Your task to perform on an android device: turn off translation in the chrome app Image 0: 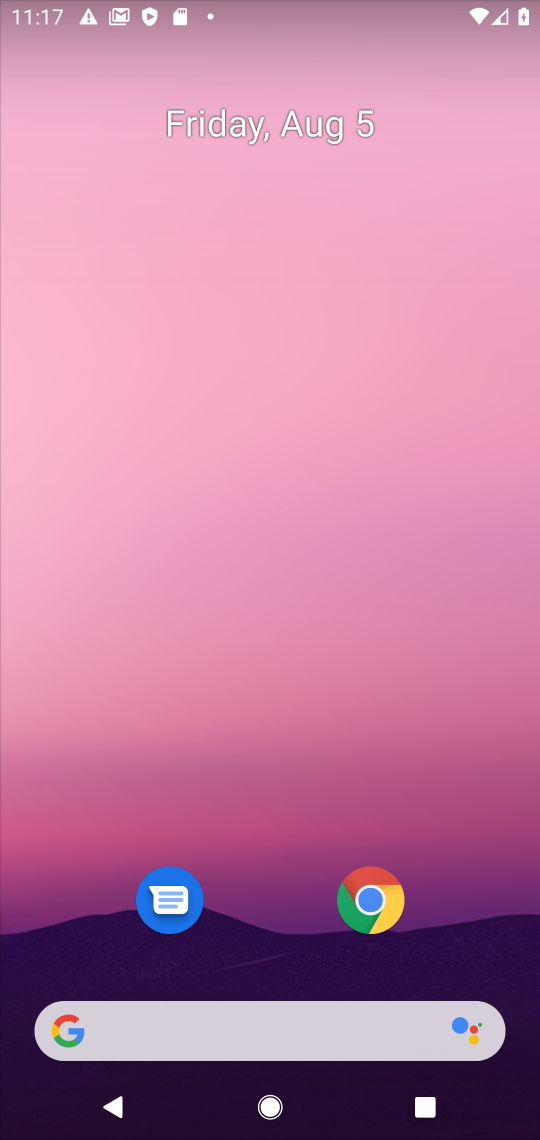
Step 0: click (367, 903)
Your task to perform on an android device: turn off translation in the chrome app Image 1: 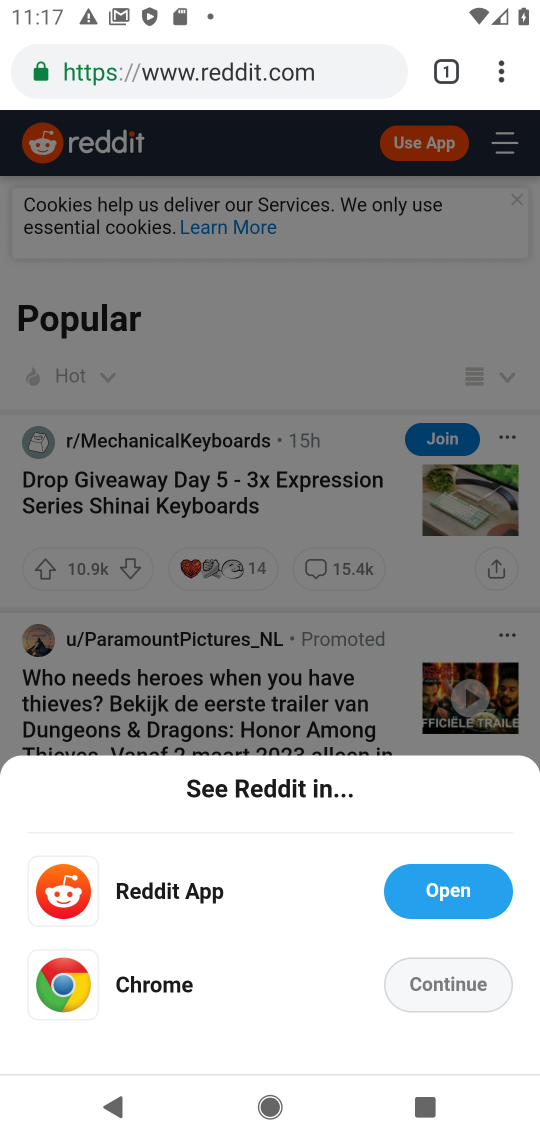
Step 1: drag from (501, 74) to (271, 863)
Your task to perform on an android device: turn off translation in the chrome app Image 2: 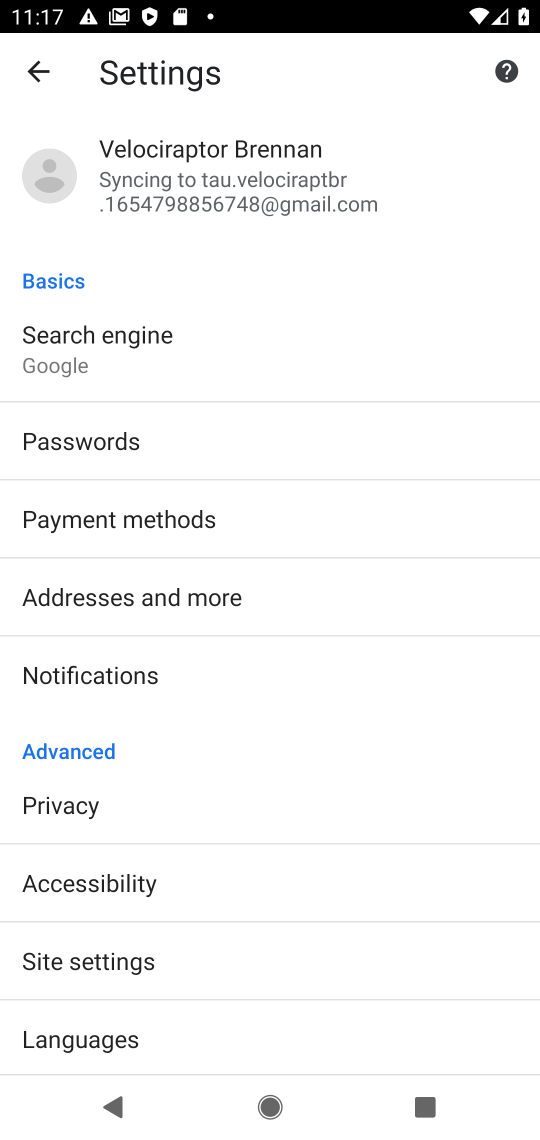
Step 2: click (102, 1042)
Your task to perform on an android device: turn off translation in the chrome app Image 3: 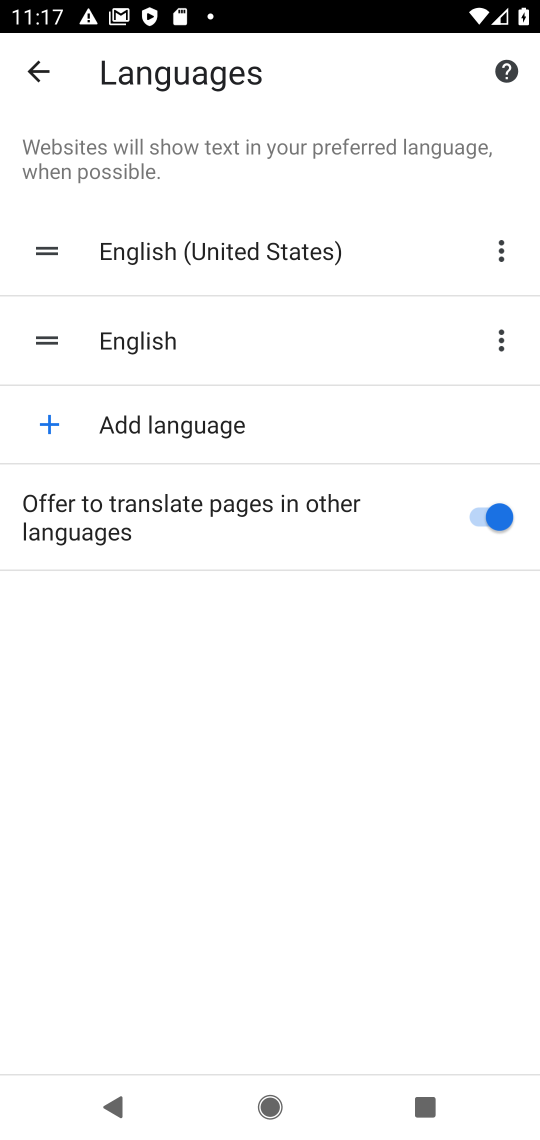
Step 3: click (484, 515)
Your task to perform on an android device: turn off translation in the chrome app Image 4: 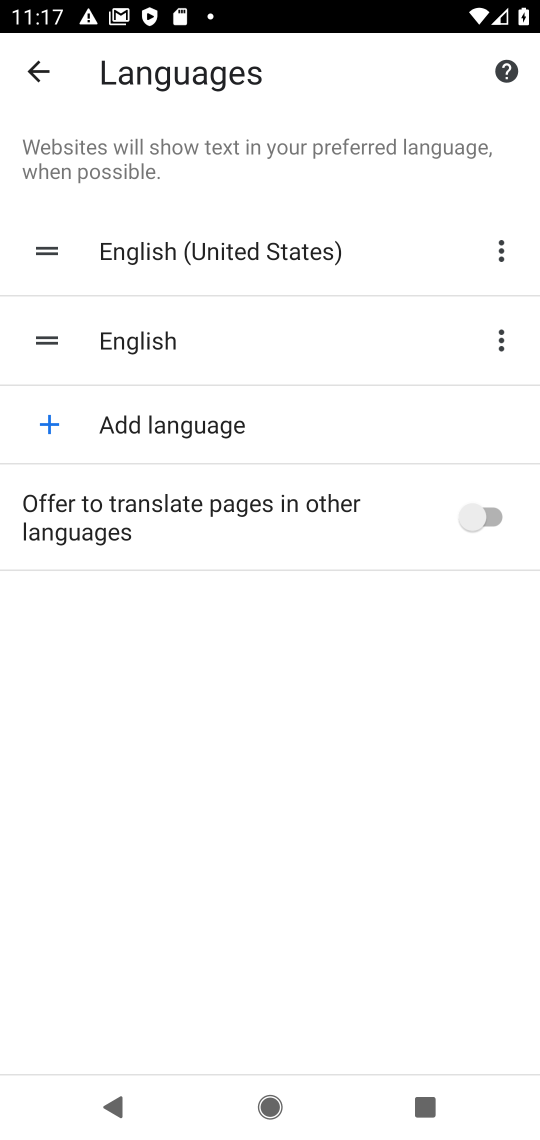
Step 4: task complete